Your task to perform on an android device: toggle airplane mode Image 0: 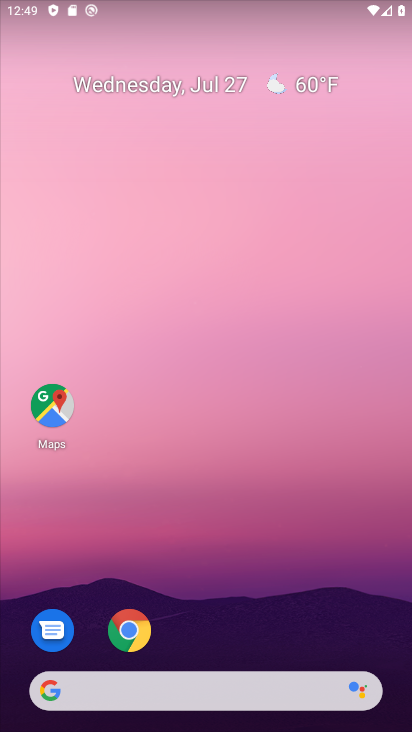
Step 0: press home button
Your task to perform on an android device: toggle airplane mode Image 1: 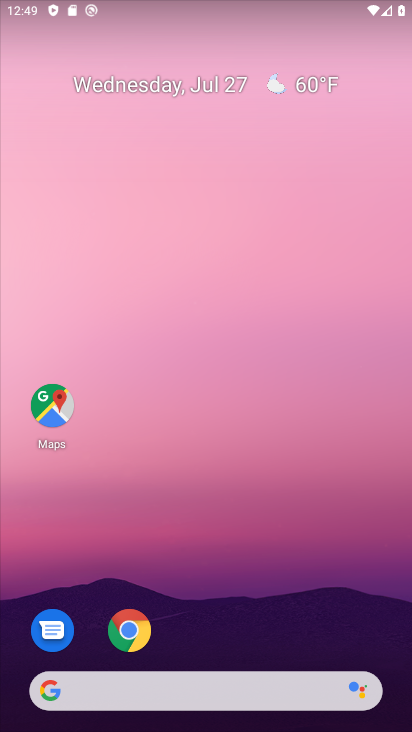
Step 1: drag from (198, 5) to (243, 446)
Your task to perform on an android device: toggle airplane mode Image 2: 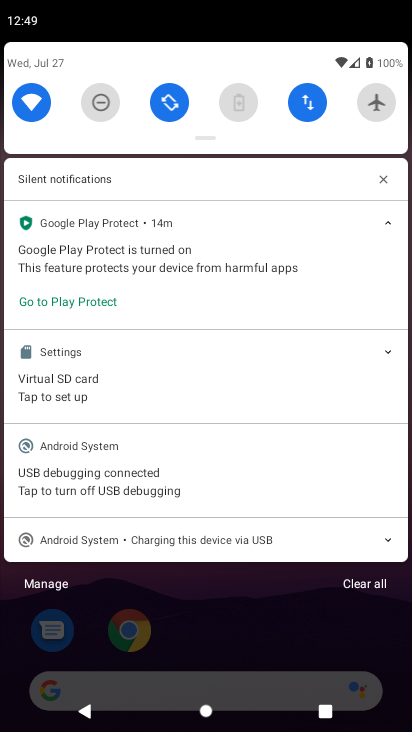
Step 2: click (379, 106)
Your task to perform on an android device: toggle airplane mode Image 3: 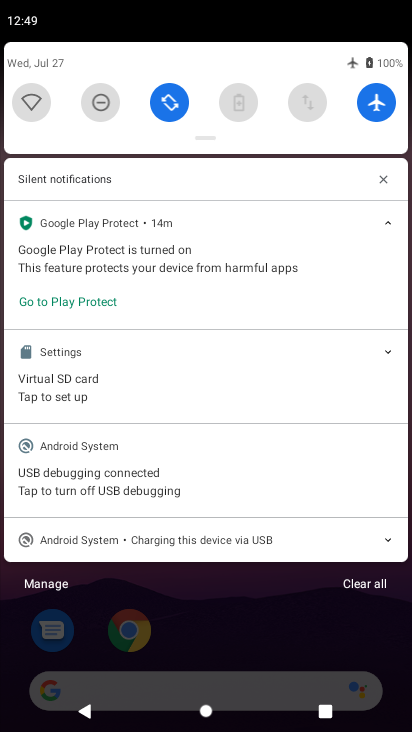
Step 3: task complete